Your task to perform on an android device: change the clock display to show seconds Image 0: 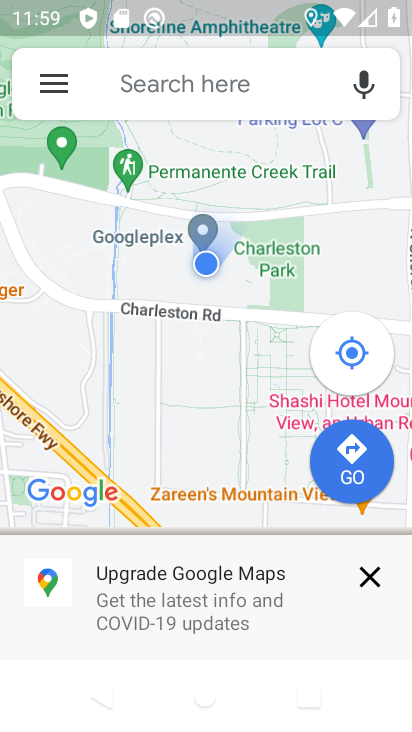
Step 0: press home button
Your task to perform on an android device: change the clock display to show seconds Image 1: 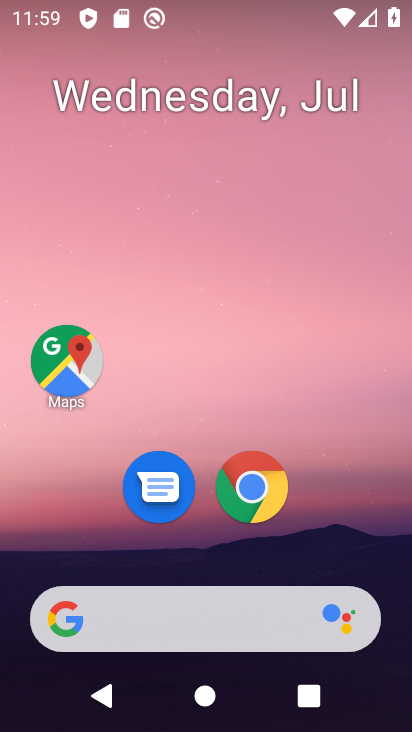
Step 1: drag from (276, 606) to (318, 197)
Your task to perform on an android device: change the clock display to show seconds Image 2: 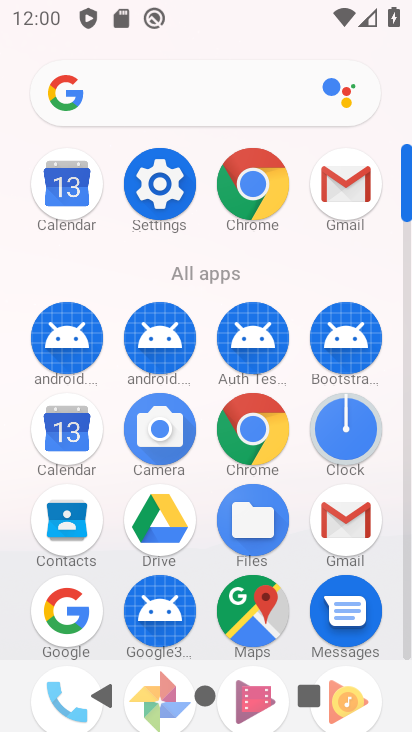
Step 2: click (365, 446)
Your task to perform on an android device: change the clock display to show seconds Image 3: 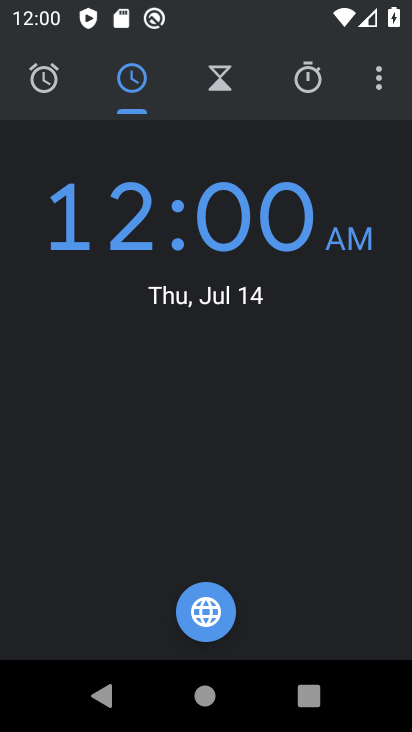
Step 3: click (390, 87)
Your task to perform on an android device: change the clock display to show seconds Image 4: 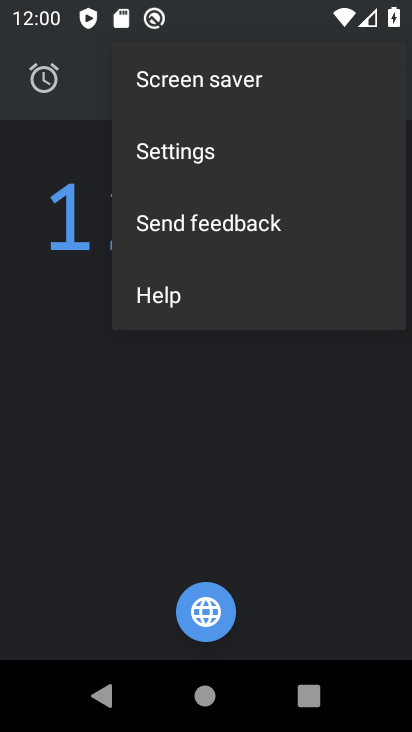
Step 4: click (174, 162)
Your task to perform on an android device: change the clock display to show seconds Image 5: 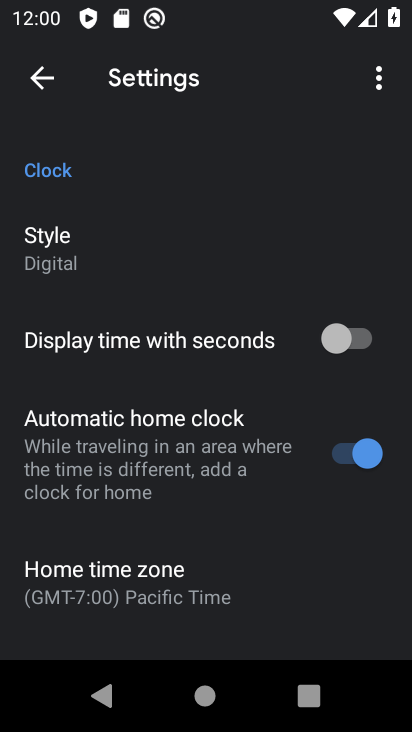
Step 5: click (164, 355)
Your task to perform on an android device: change the clock display to show seconds Image 6: 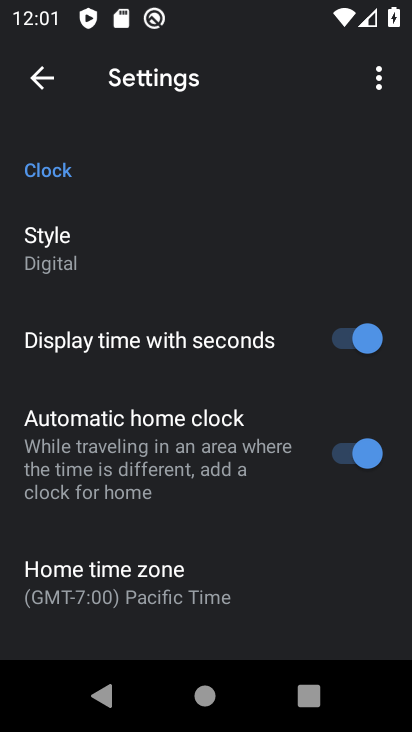
Step 6: task complete